Your task to perform on an android device: Open wifi settings Image 0: 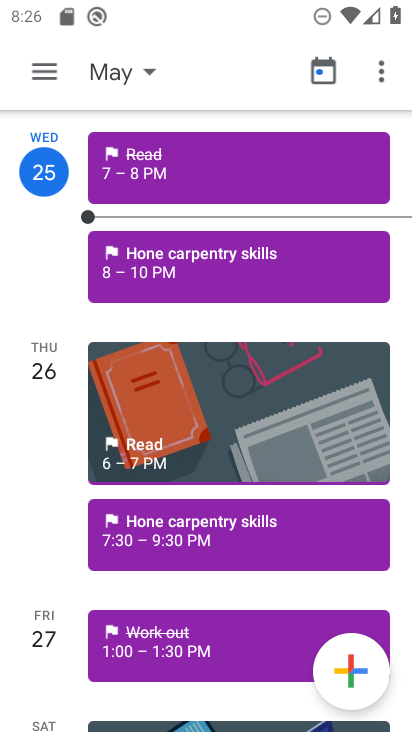
Step 0: press home button
Your task to perform on an android device: Open wifi settings Image 1: 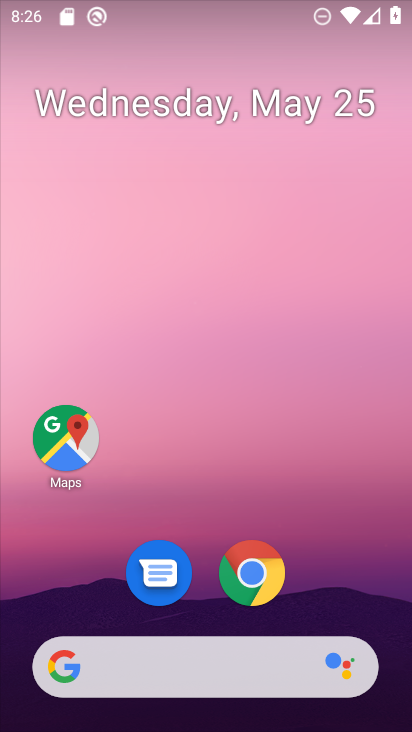
Step 1: drag from (392, 717) to (312, 168)
Your task to perform on an android device: Open wifi settings Image 2: 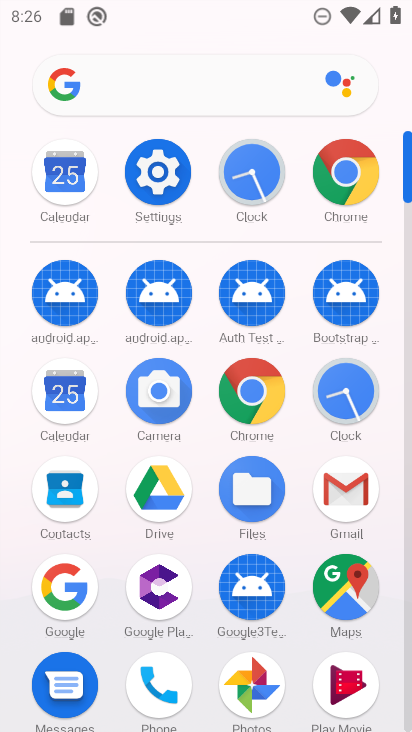
Step 2: click (167, 189)
Your task to perform on an android device: Open wifi settings Image 3: 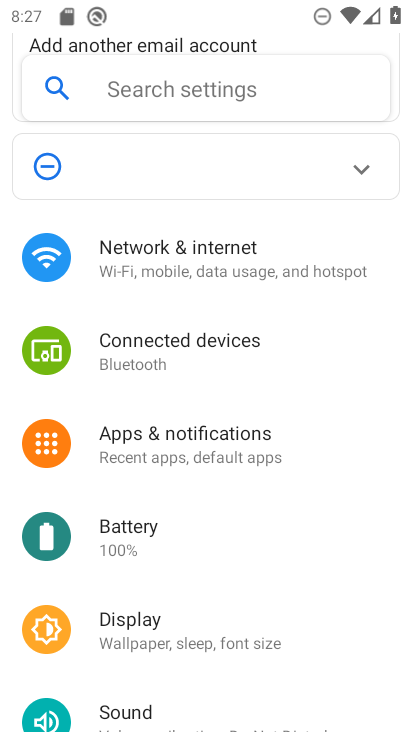
Step 3: drag from (308, 685) to (338, 373)
Your task to perform on an android device: Open wifi settings Image 4: 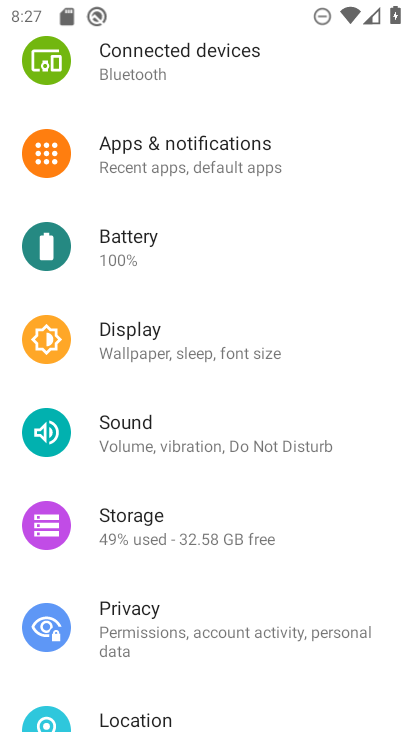
Step 4: drag from (325, 117) to (326, 681)
Your task to perform on an android device: Open wifi settings Image 5: 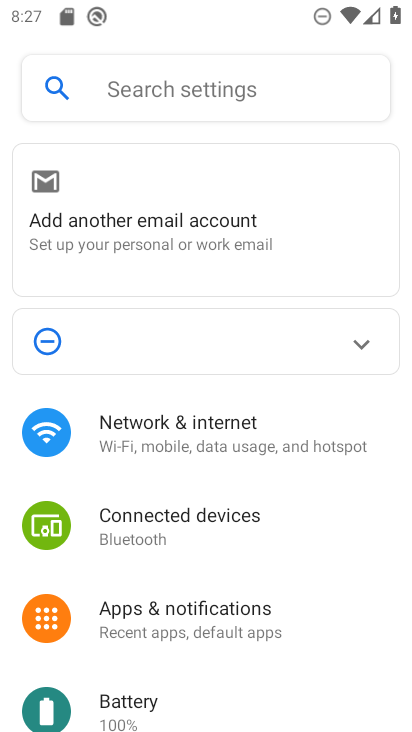
Step 5: click (152, 417)
Your task to perform on an android device: Open wifi settings Image 6: 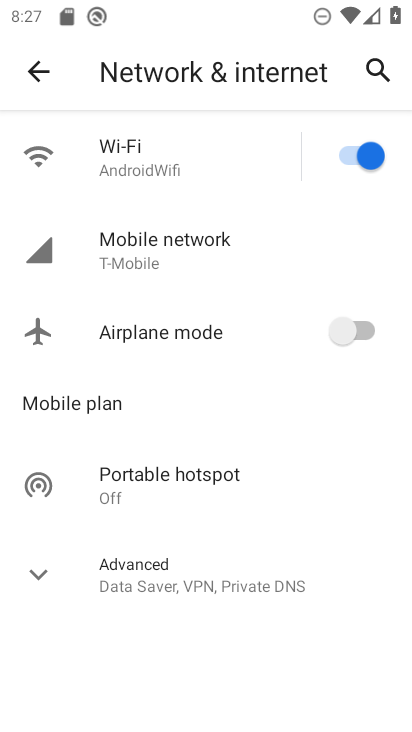
Step 6: click (133, 171)
Your task to perform on an android device: Open wifi settings Image 7: 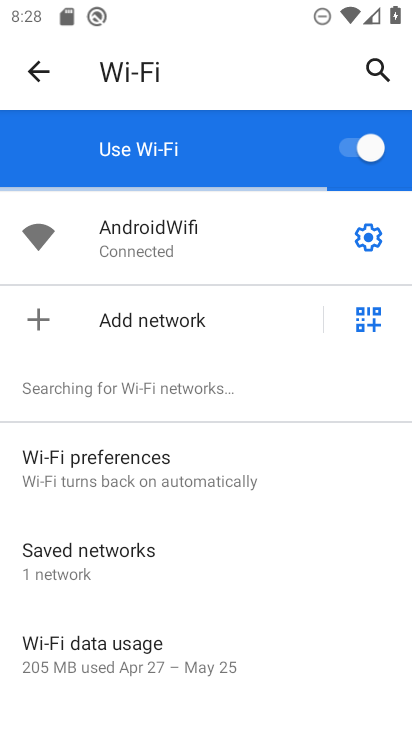
Step 7: click (293, 244)
Your task to perform on an android device: Open wifi settings Image 8: 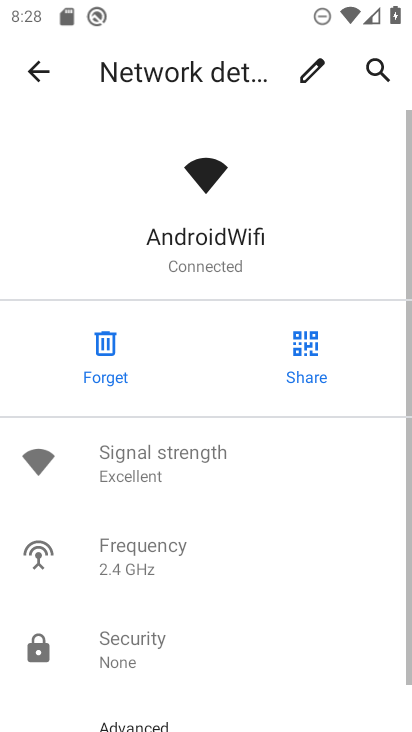
Step 8: task complete